Your task to perform on an android device: Open accessibility settings Image 0: 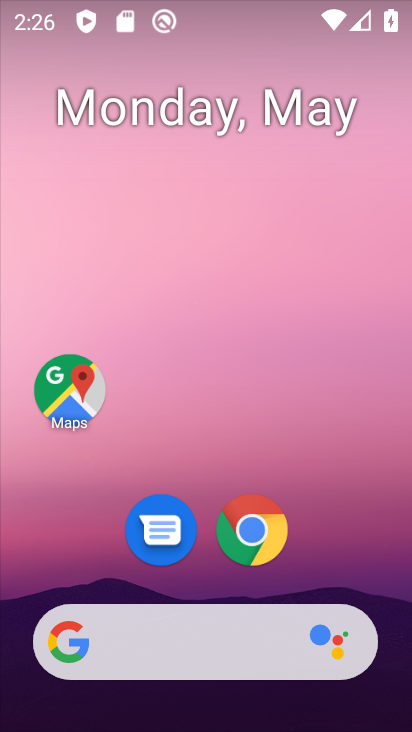
Step 0: drag from (200, 463) to (247, 65)
Your task to perform on an android device: Open accessibility settings Image 1: 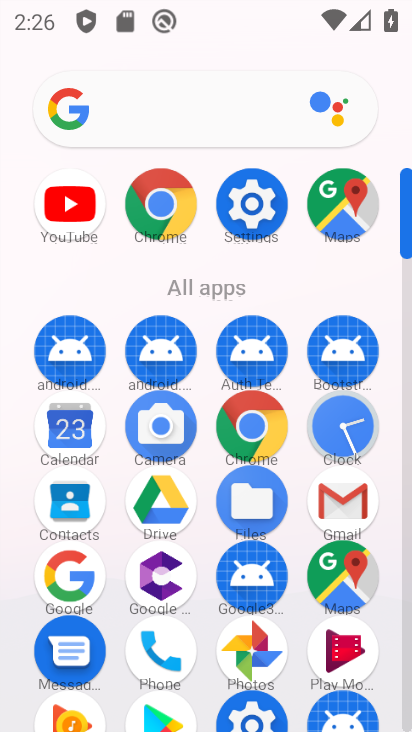
Step 1: click (253, 200)
Your task to perform on an android device: Open accessibility settings Image 2: 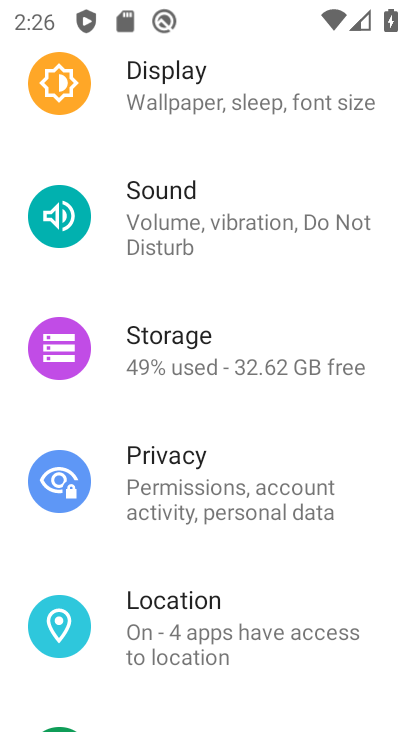
Step 2: drag from (191, 612) to (302, 83)
Your task to perform on an android device: Open accessibility settings Image 3: 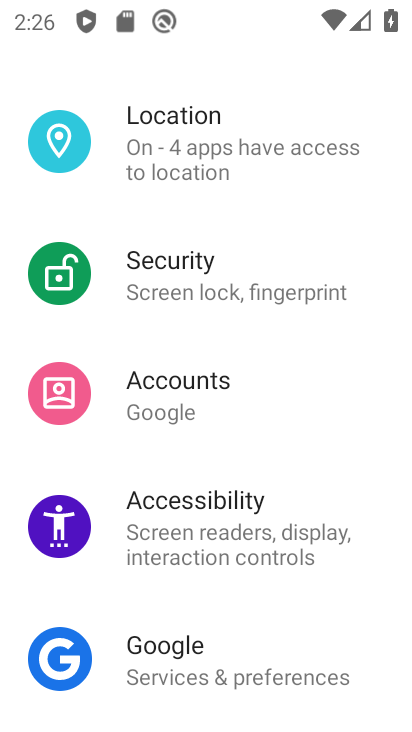
Step 3: click (158, 525)
Your task to perform on an android device: Open accessibility settings Image 4: 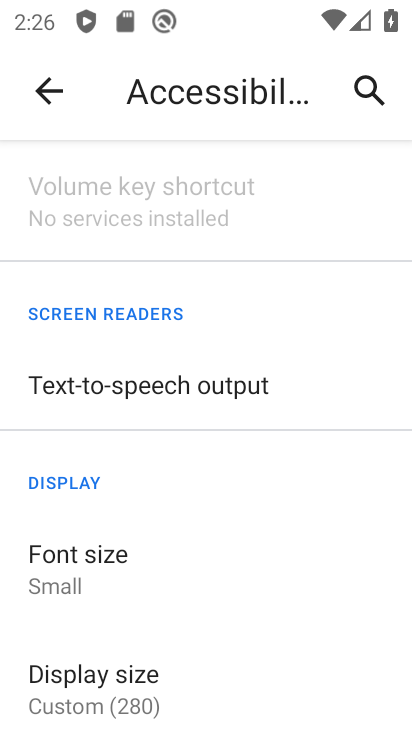
Step 4: task complete